Your task to perform on an android device: Play the last video I watched on Youtube Image 0: 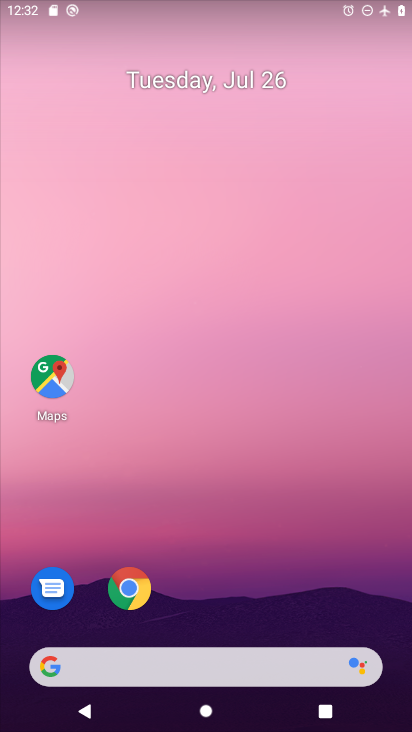
Step 0: drag from (227, 618) to (172, 71)
Your task to perform on an android device: Play the last video I watched on Youtube Image 1: 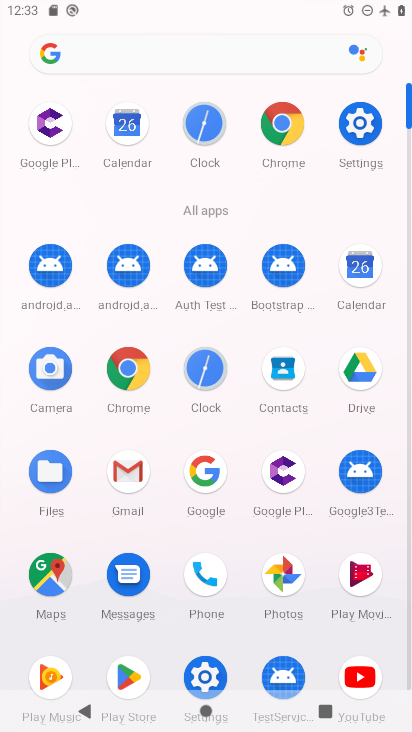
Step 1: click (361, 678)
Your task to perform on an android device: Play the last video I watched on Youtube Image 2: 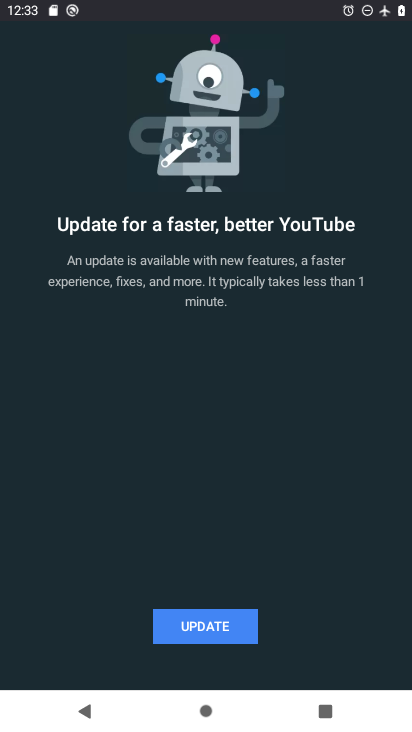
Step 2: click (212, 628)
Your task to perform on an android device: Play the last video I watched on Youtube Image 3: 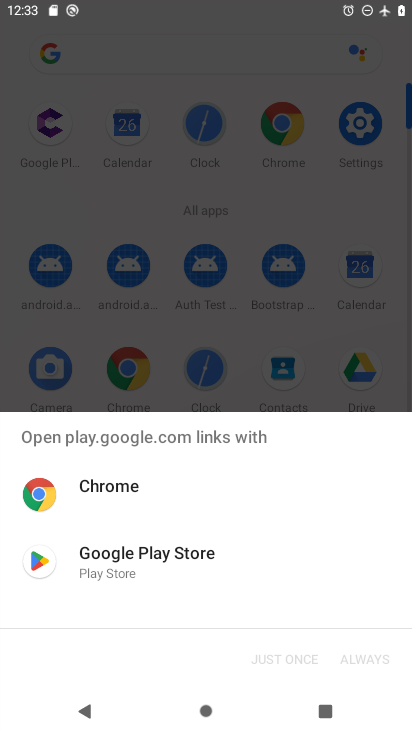
Step 3: click (214, 569)
Your task to perform on an android device: Play the last video I watched on Youtube Image 4: 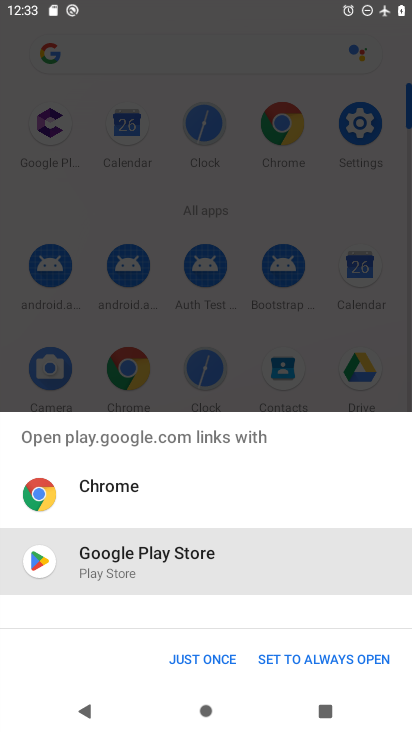
Step 4: click (226, 653)
Your task to perform on an android device: Play the last video I watched on Youtube Image 5: 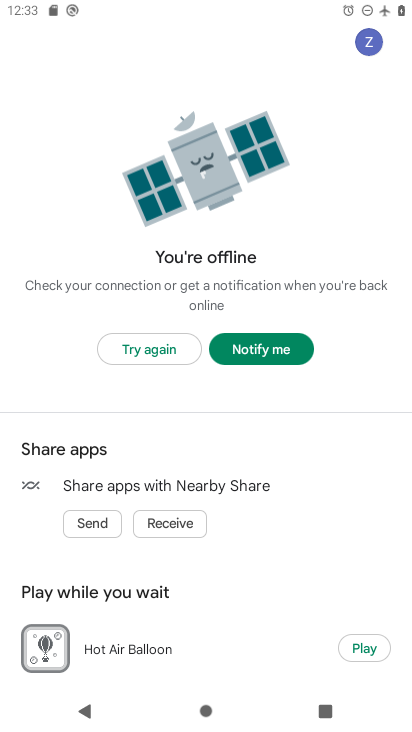
Step 5: task complete